Your task to perform on an android device: allow notifications from all sites in the chrome app Image 0: 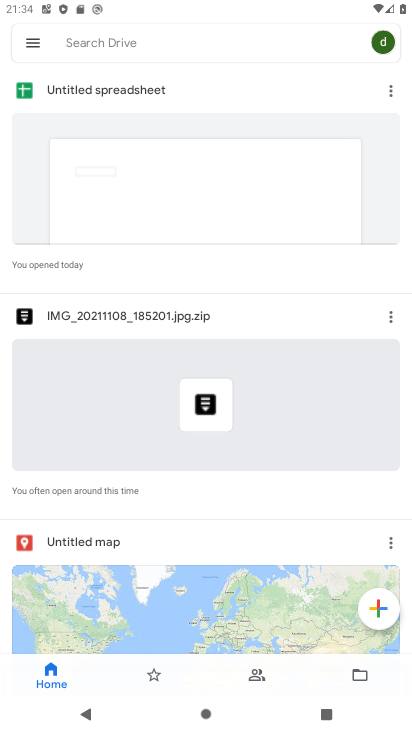
Step 0: press home button
Your task to perform on an android device: allow notifications from all sites in the chrome app Image 1: 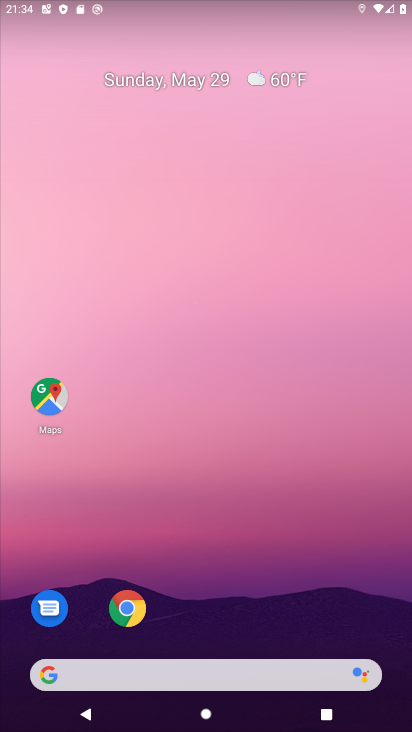
Step 1: drag from (382, 636) to (378, 154)
Your task to perform on an android device: allow notifications from all sites in the chrome app Image 2: 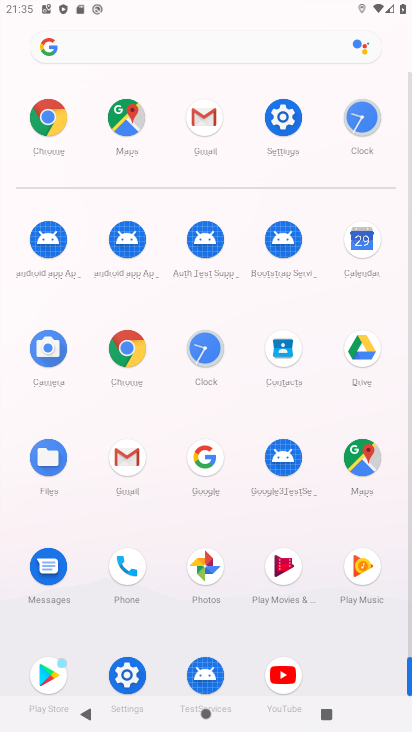
Step 2: click (141, 355)
Your task to perform on an android device: allow notifications from all sites in the chrome app Image 3: 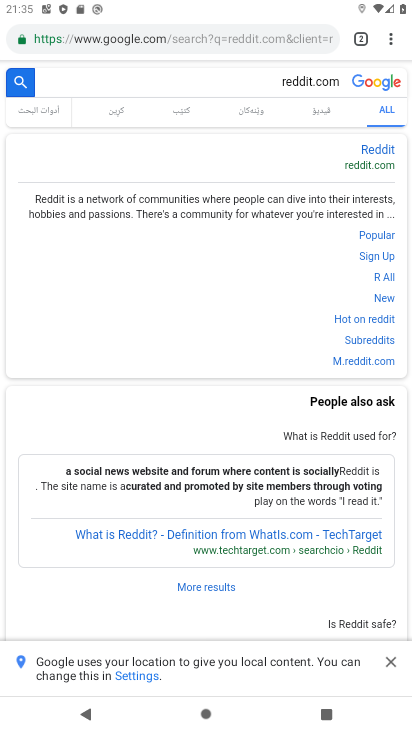
Step 3: click (389, 40)
Your task to perform on an android device: allow notifications from all sites in the chrome app Image 4: 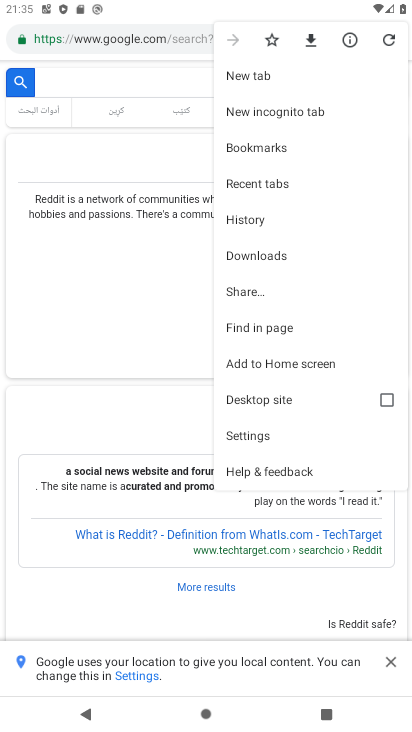
Step 4: click (261, 438)
Your task to perform on an android device: allow notifications from all sites in the chrome app Image 5: 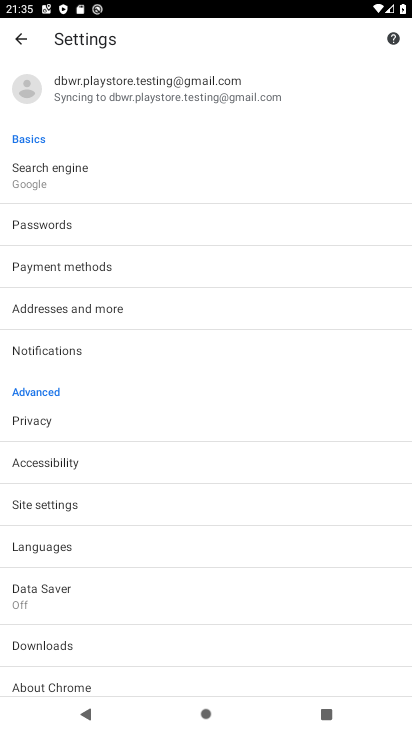
Step 5: click (243, 507)
Your task to perform on an android device: allow notifications from all sites in the chrome app Image 6: 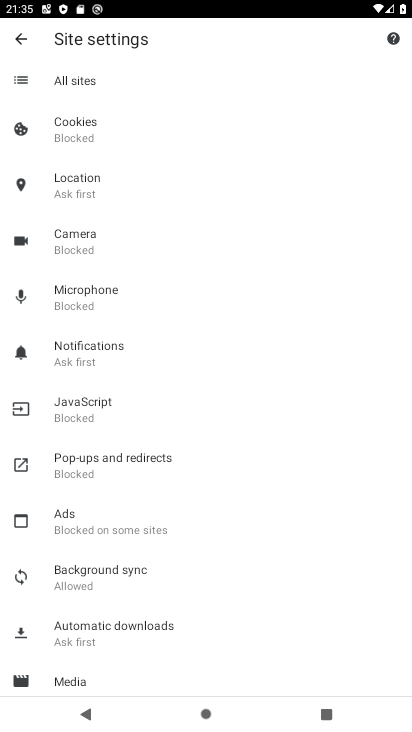
Step 6: click (185, 357)
Your task to perform on an android device: allow notifications from all sites in the chrome app Image 7: 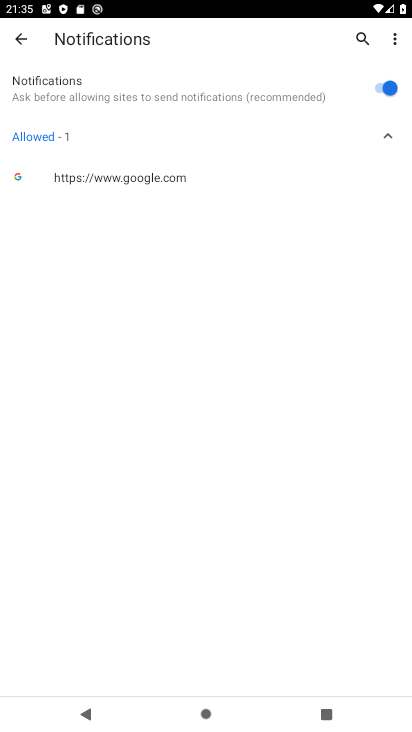
Step 7: task complete